Your task to perform on an android device: turn off sleep mode Image 0: 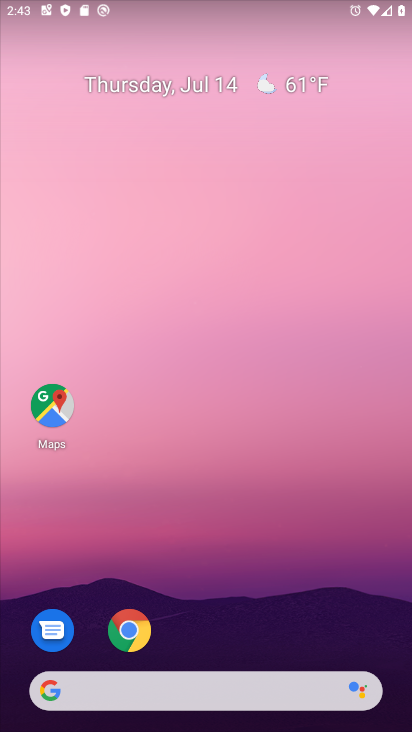
Step 0: press home button
Your task to perform on an android device: turn off sleep mode Image 1: 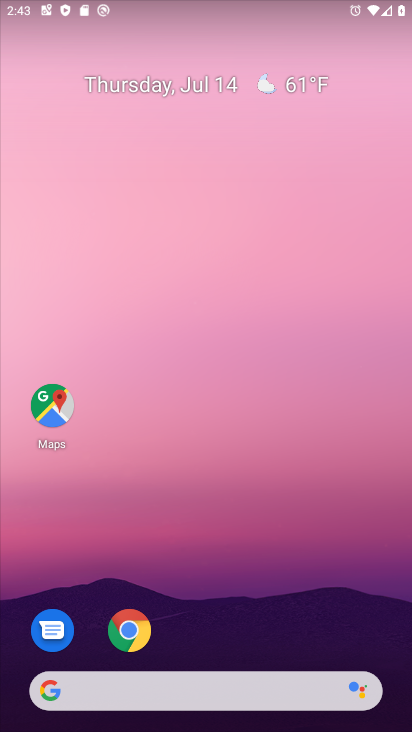
Step 1: drag from (213, 655) to (274, 12)
Your task to perform on an android device: turn off sleep mode Image 2: 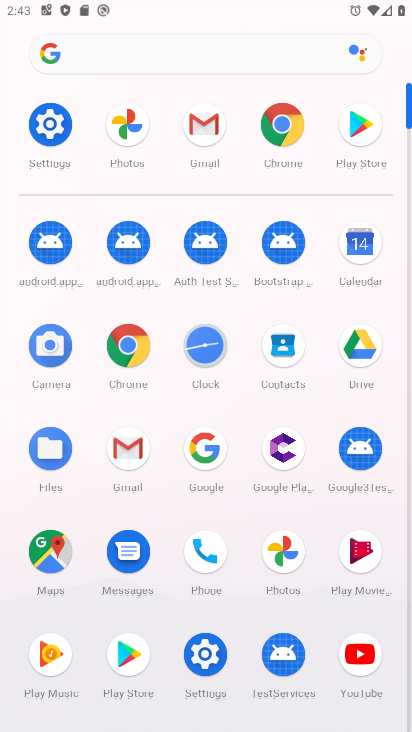
Step 2: click (47, 123)
Your task to perform on an android device: turn off sleep mode Image 3: 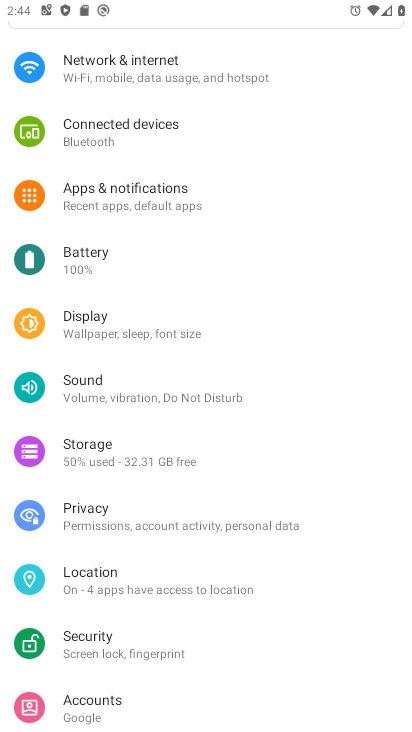
Step 3: click (157, 333)
Your task to perform on an android device: turn off sleep mode Image 4: 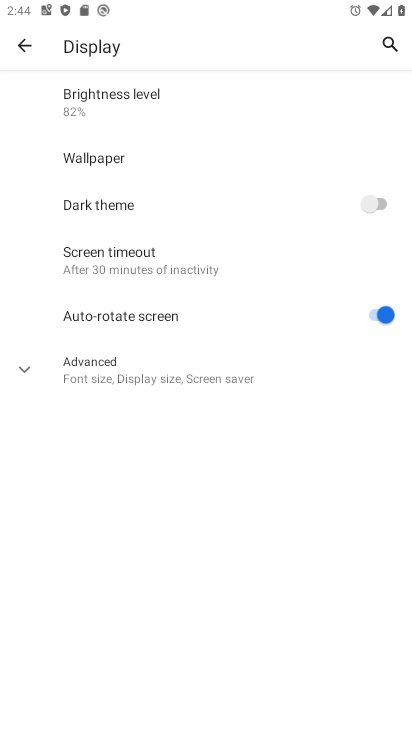
Step 4: task complete